Your task to perform on an android device: Find coffee shops on Maps Image 0: 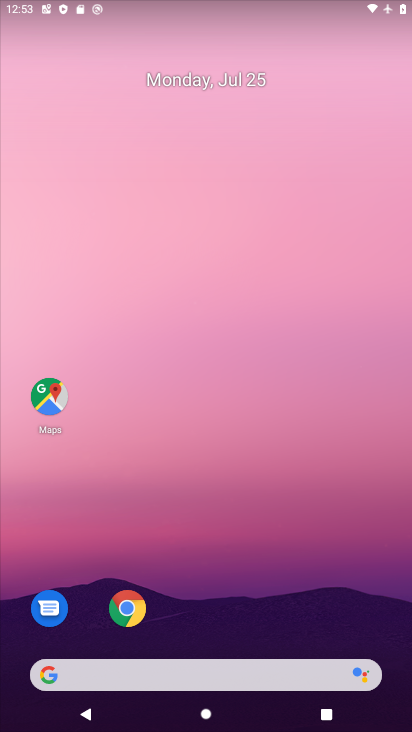
Step 0: drag from (234, 607) to (205, 187)
Your task to perform on an android device: Find coffee shops on Maps Image 1: 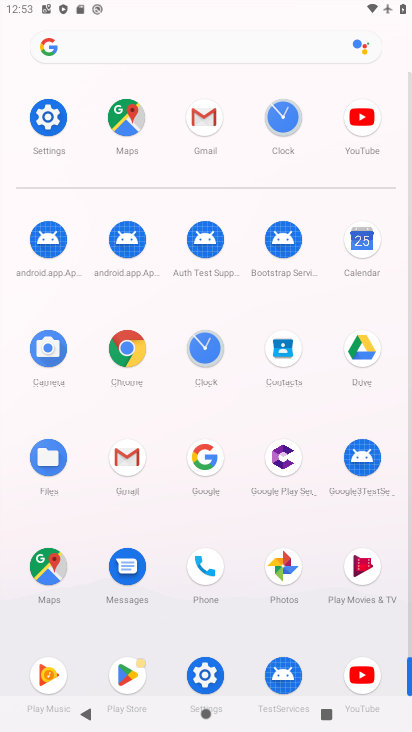
Step 1: click (50, 566)
Your task to perform on an android device: Find coffee shops on Maps Image 2: 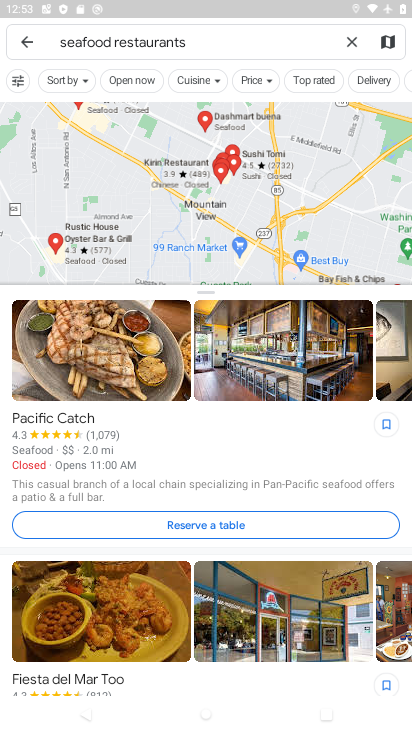
Step 2: click (349, 43)
Your task to perform on an android device: Find coffee shops on Maps Image 3: 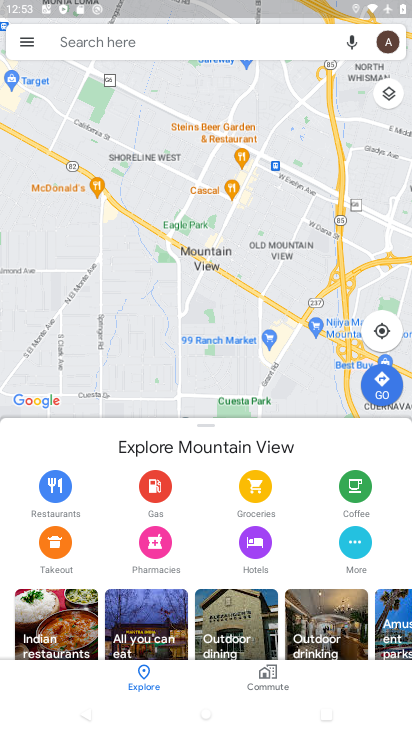
Step 3: click (349, 43)
Your task to perform on an android device: Find coffee shops on Maps Image 4: 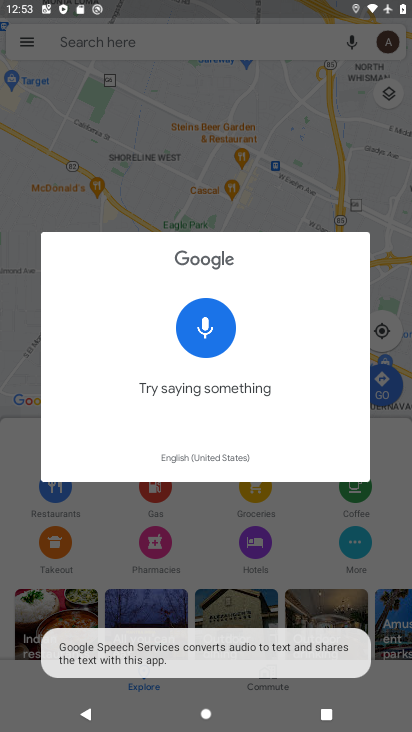
Step 4: click (272, 44)
Your task to perform on an android device: Find coffee shops on Maps Image 5: 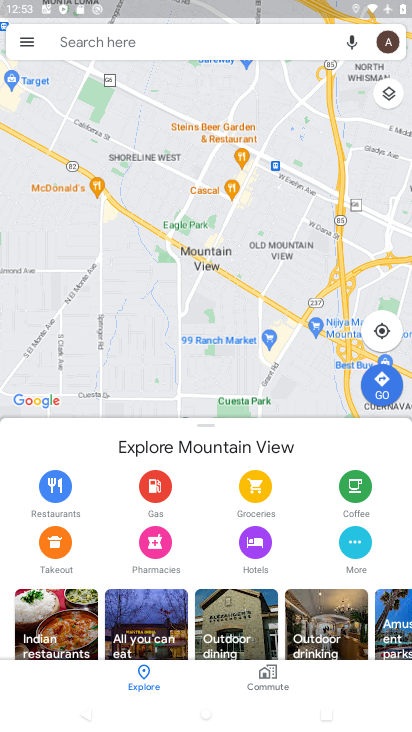
Step 5: click (239, 47)
Your task to perform on an android device: Find coffee shops on Maps Image 6: 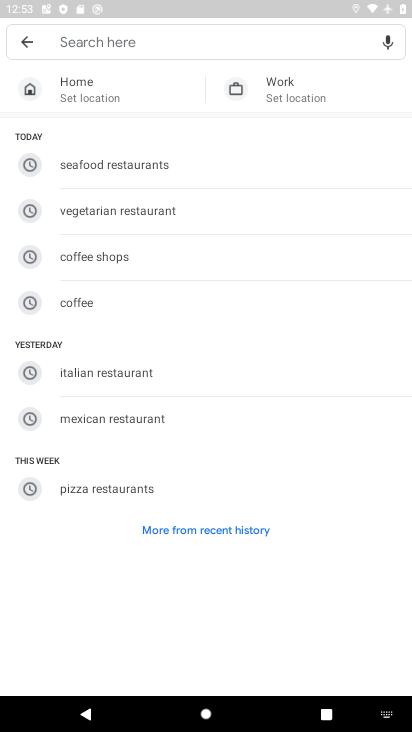
Step 6: click (121, 257)
Your task to perform on an android device: Find coffee shops on Maps Image 7: 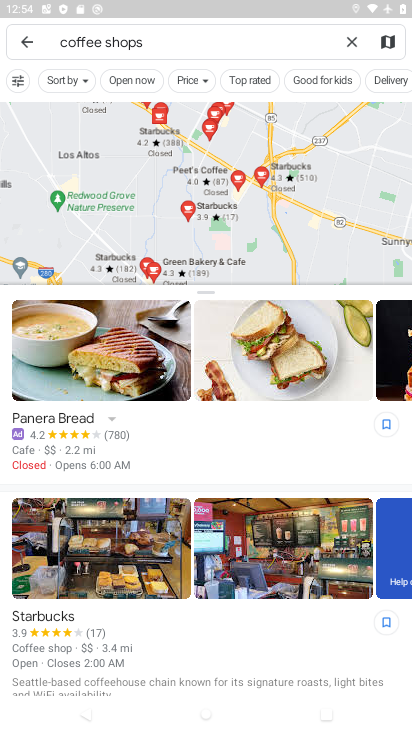
Step 7: task complete